Your task to perform on an android device: Open the stopwatch Image 0: 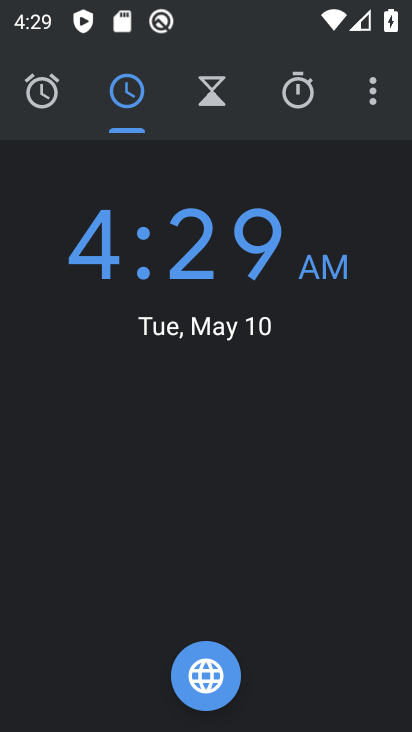
Step 0: click (311, 94)
Your task to perform on an android device: Open the stopwatch Image 1: 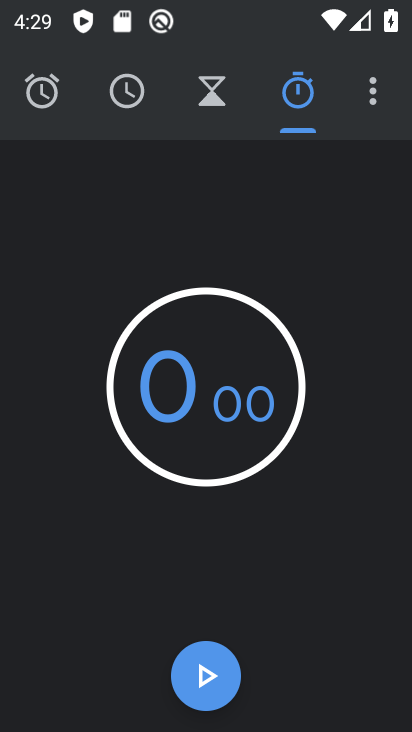
Step 1: task complete